Your task to perform on an android device: Open accessibility settings Image 0: 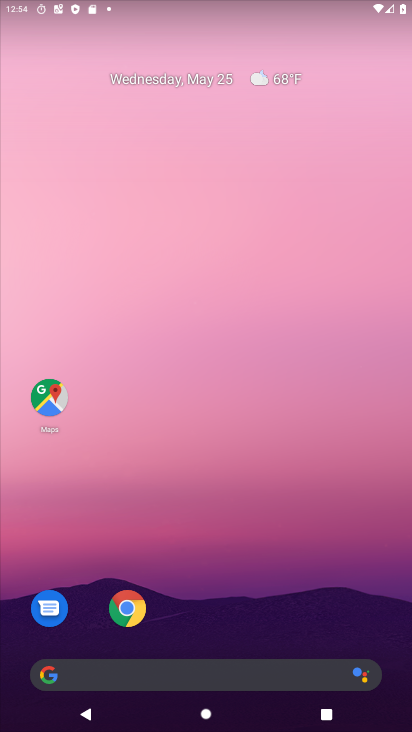
Step 0: drag from (247, 610) to (277, 131)
Your task to perform on an android device: Open accessibility settings Image 1: 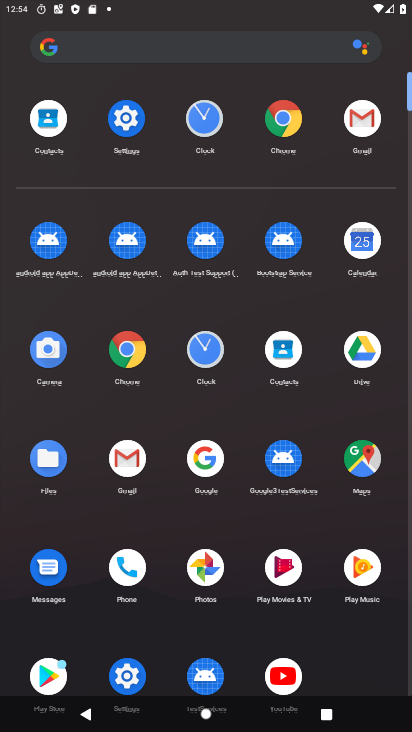
Step 1: click (105, 671)
Your task to perform on an android device: Open accessibility settings Image 2: 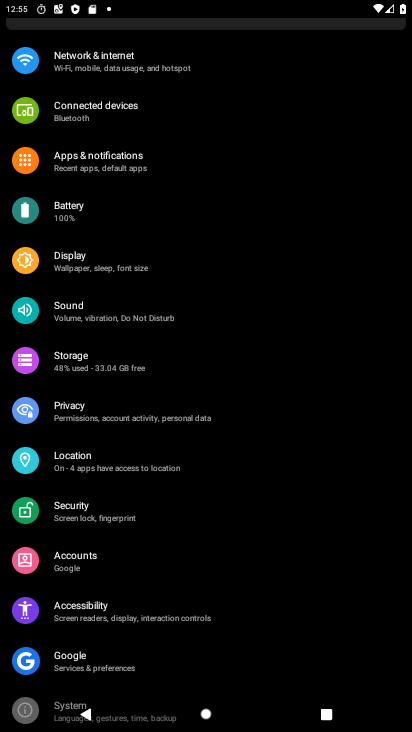
Step 2: drag from (154, 623) to (231, 108)
Your task to perform on an android device: Open accessibility settings Image 3: 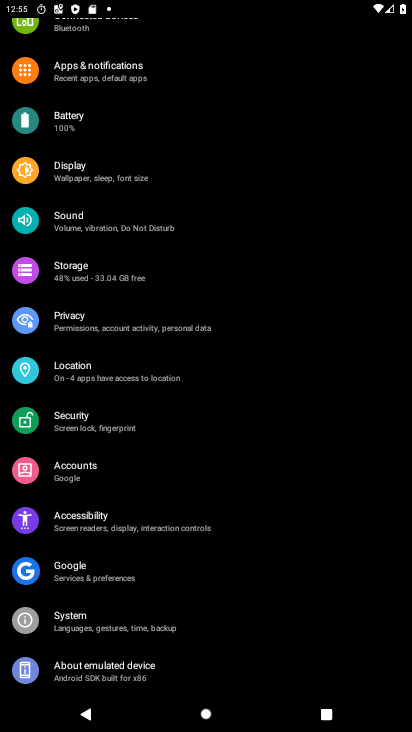
Step 3: click (164, 525)
Your task to perform on an android device: Open accessibility settings Image 4: 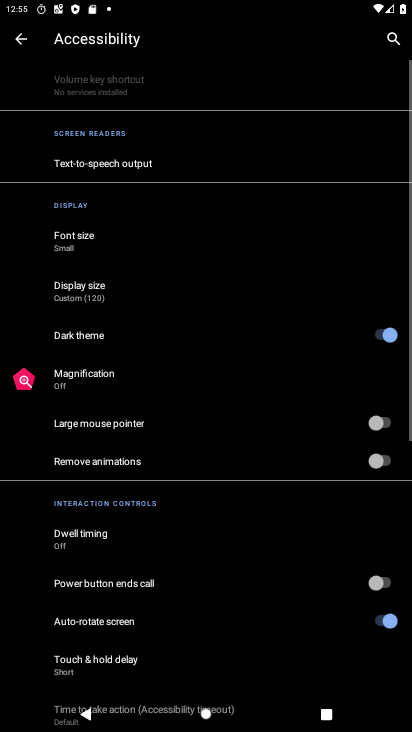
Step 4: task complete